Your task to perform on an android device: Open the map Image 0: 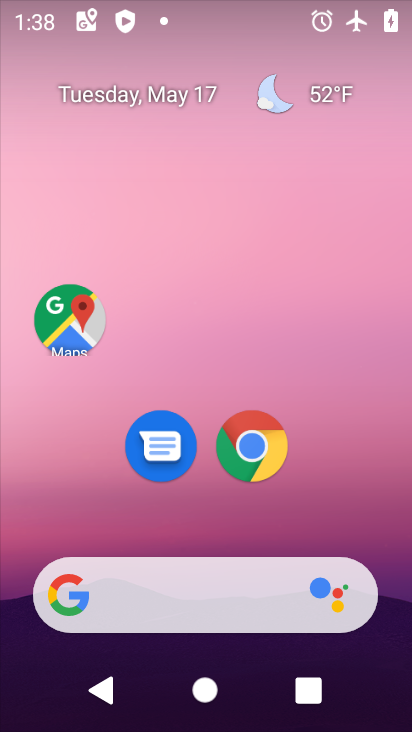
Step 0: click (71, 319)
Your task to perform on an android device: Open the map Image 1: 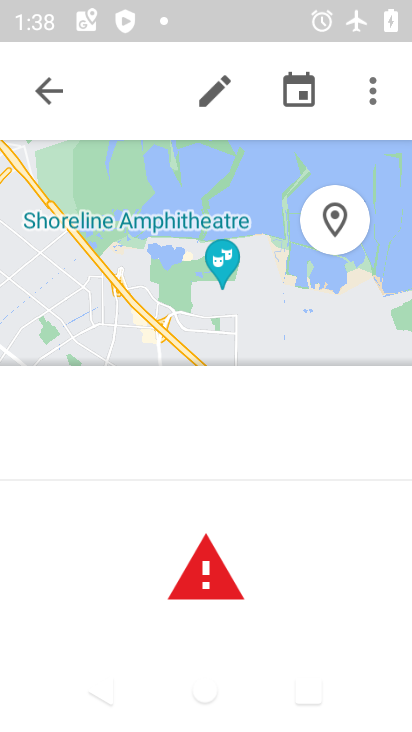
Step 1: task complete